Your task to perform on an android device: open the mobile data screen to see how much data has been used Image 0: 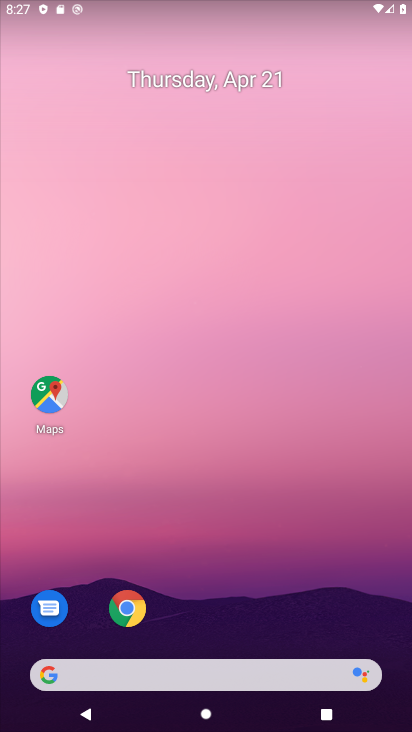
Step 0: drag from (290, 613) to (275, 106)
Your task to perform on an android device: open the mobile data screen to see how much data has been used Image 1: 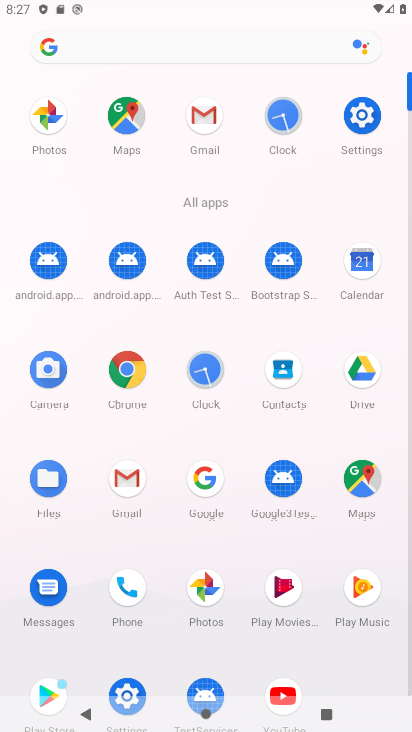
Step 1: click (360, 106)
Your task to perform on an android device: open the mobile data screen to see how much data has been used Image 2: 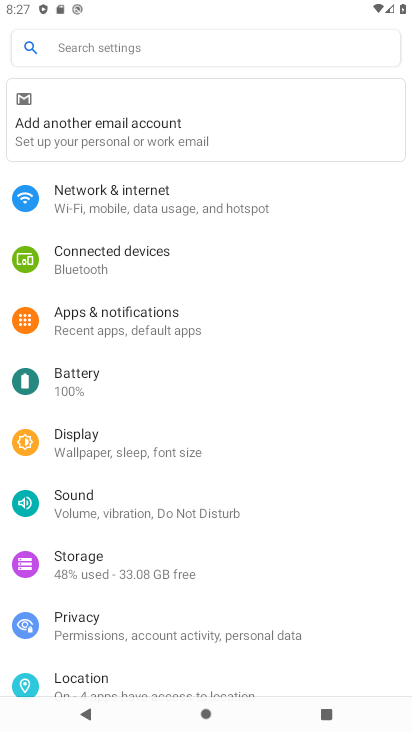
Step 2: click (240, 207)
Your task to perform on an android device: open the mobile data screen to see how much data has been used Image 3: 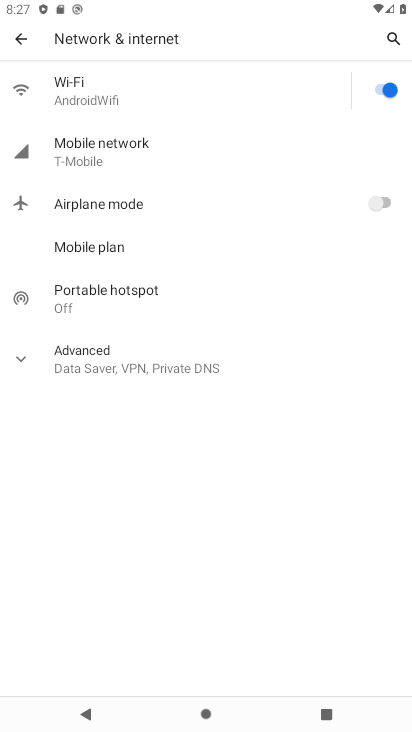
Step 3: click (294, 138)
Your task to perform on an android device: open the mobile data screen to see how much data has been used Image 4: 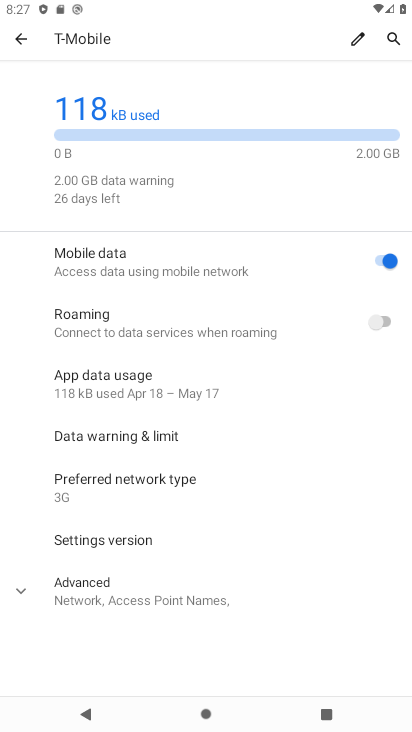
Step 4: task complete